Your task to perform on an android device: Go to Google Image 0: 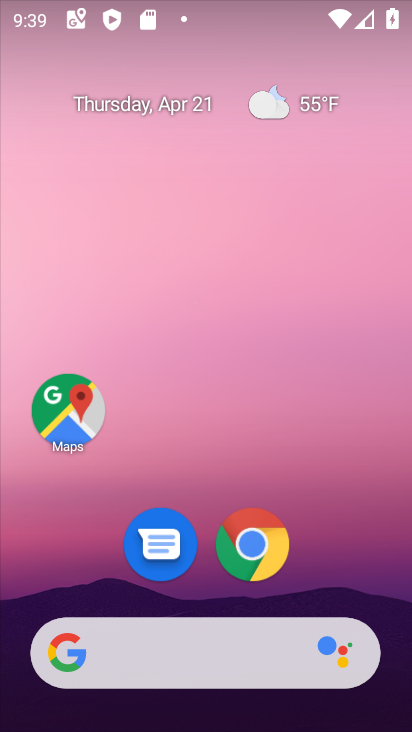
Step 0: drag from (312, 369) to (247, 33)
Your task to perform on an android device: Go to Google Image 1: 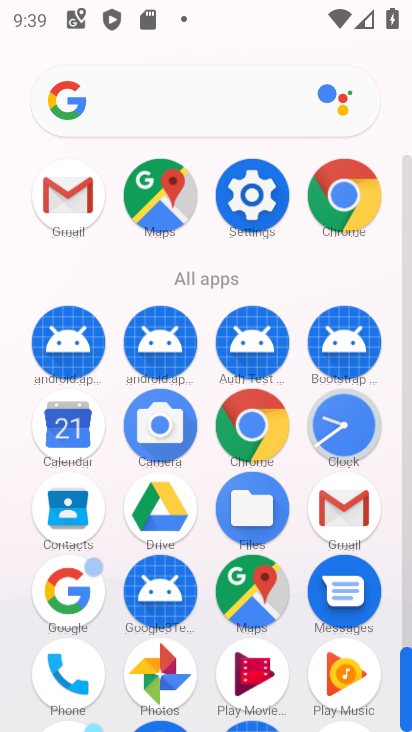
Step 1: drag from (5, 607) to (0, 355)
Your task to perform on an android device: Go to Google Image 2: 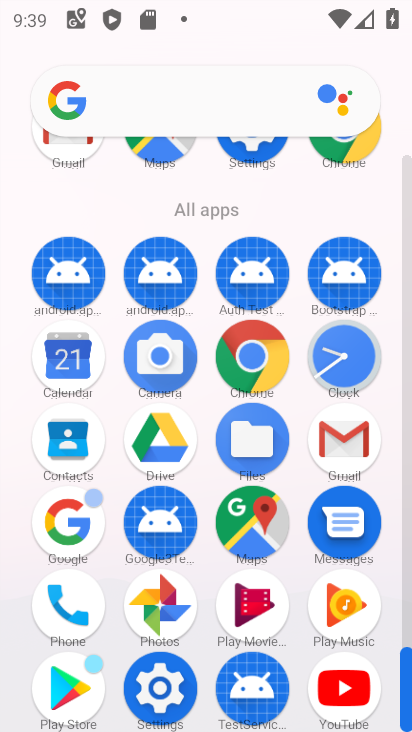
Step 2: click (252, 360)
Your task to perform on an android device: Go to Google Image 3: 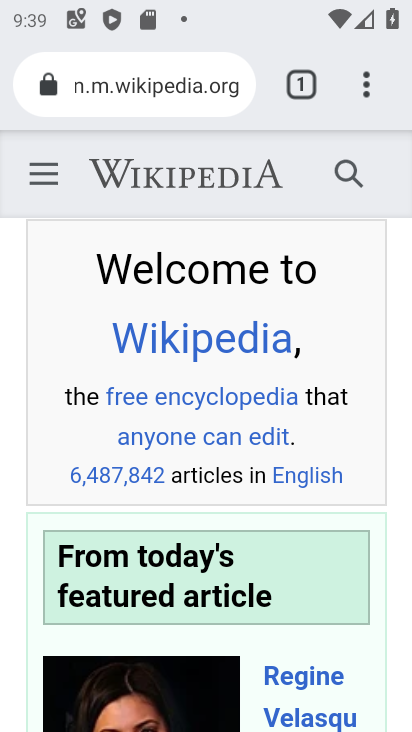
Step 3: click (162, 89)
Your task to perform on an android device: Go to Google Image 4: 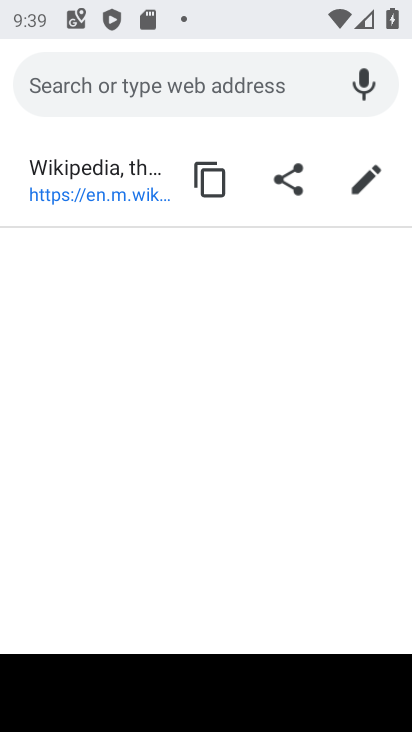
Step 4: type "Google"
Your task to perform on an android device: Go to Google Image 5: 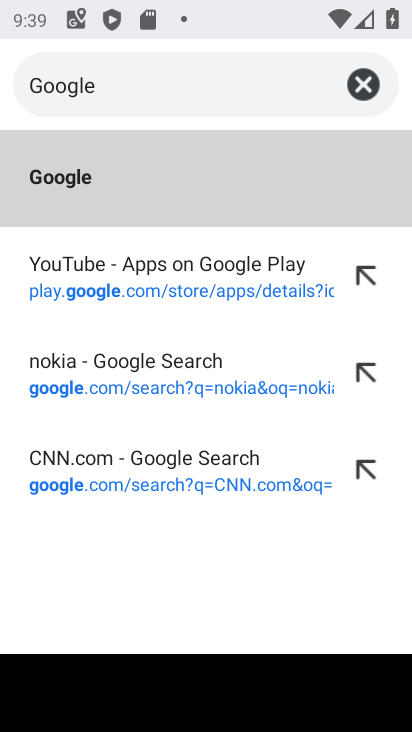
Step 5: click (189, 189)
Your task to perform on an android device: Go to Google Image 6: 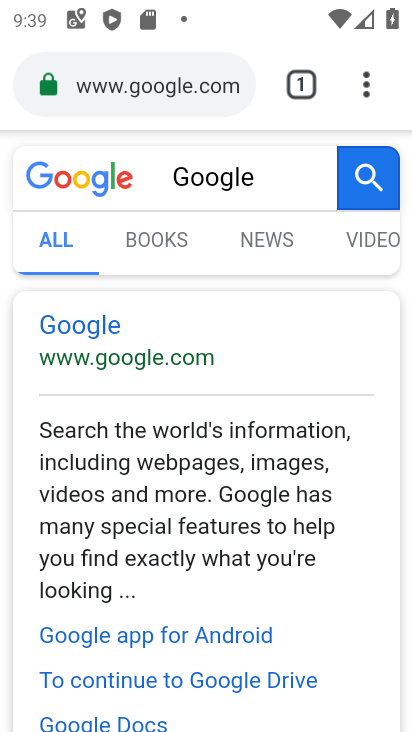
Step 6: click (91, 322)
Your task to perform on an android device: Go to Google Image 7: 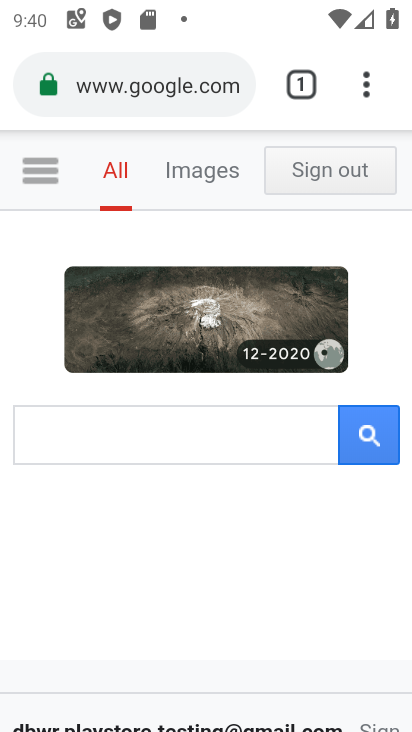
Step 7: task complete